Your task to perform on an android device: toggle improve location accuracy Image 0: 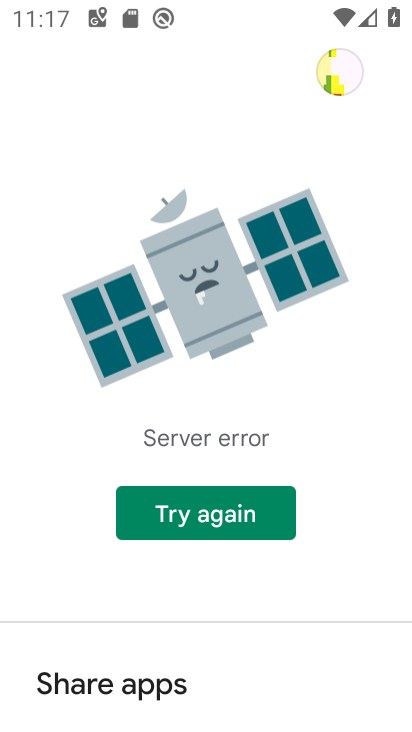
Step 0: press home button
Your task to perform on an android device: toggle improve location accuracy Image 1: 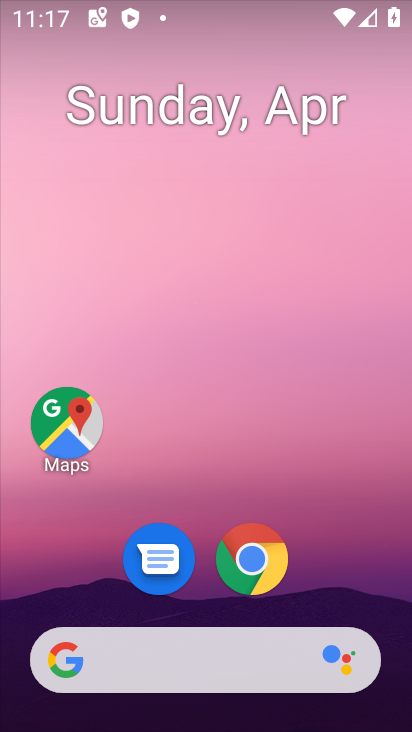
Step 1: drag from (303, 596) to (377, 64)
Your task to perform on an android device: toggle improve location accuracy Image 2: 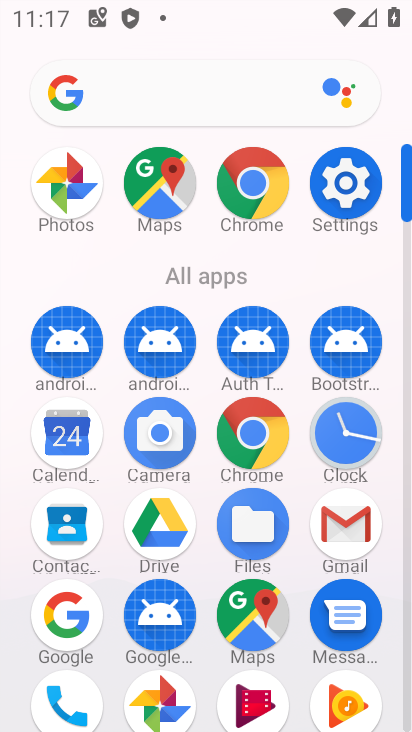
Step 2: click (353, 211)
Your task to perform on an android device: toggle improve location accuracy Image 3: 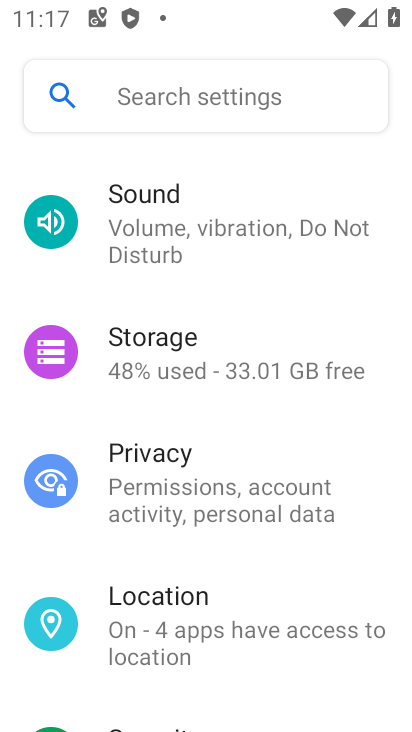
Step 3: click (193, 604)
Your task to perform on an android device: toggle improve location accuracy Image 4: 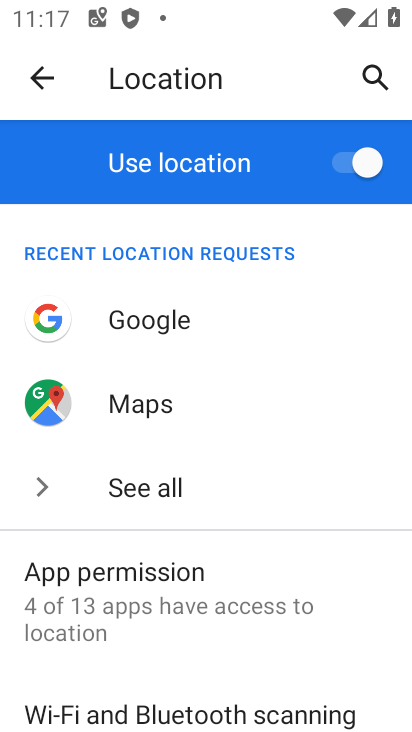
Step 4: drag from (188, 612) to (188, 482)
Your task to perform on an android device: toggle improve location accuracy Image 5: 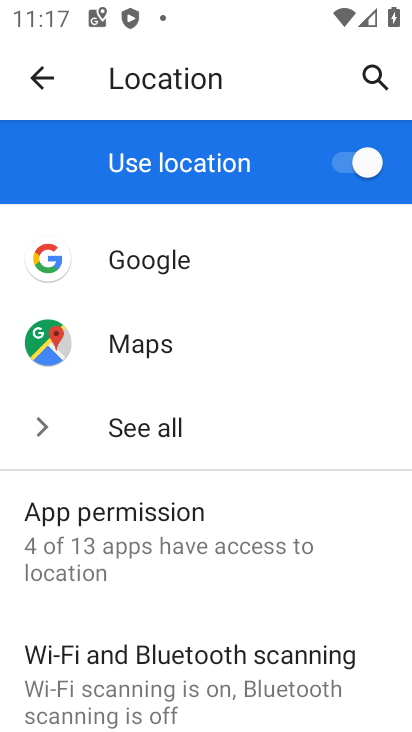
Step 5: drag from (153, 617) to (206, 329)
Your task to perform on an android device: toggle improve location accuracy Image 6: 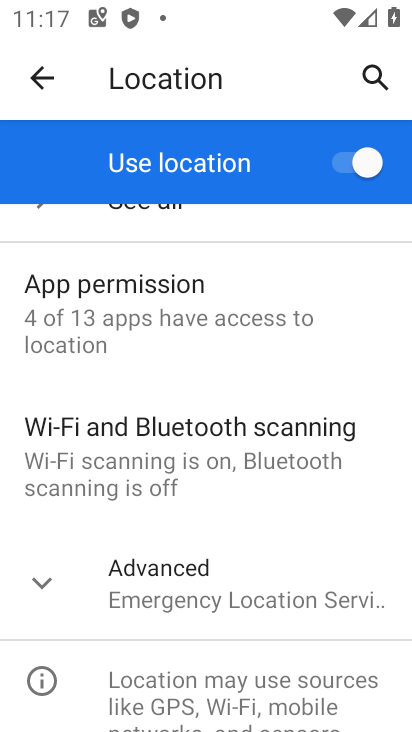
Step 6: click (203, 607)
Your task to perform on an android device: toggle improve location accuracy Image 7: 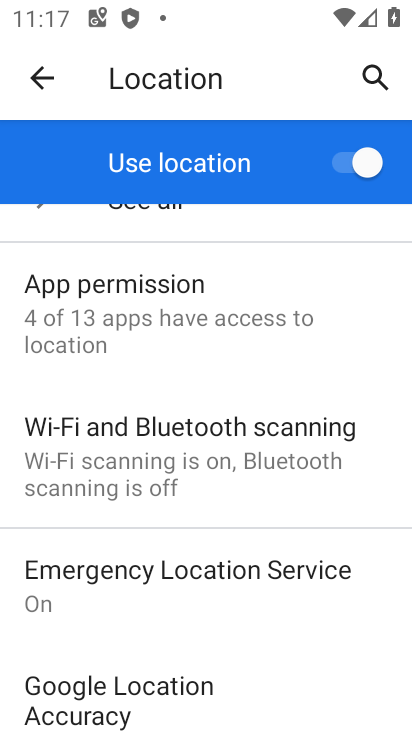
Step 7: drag from (209, 630) to (214, 499)
Your task to perform on an android device: toggle improve location accuracy Image 8: 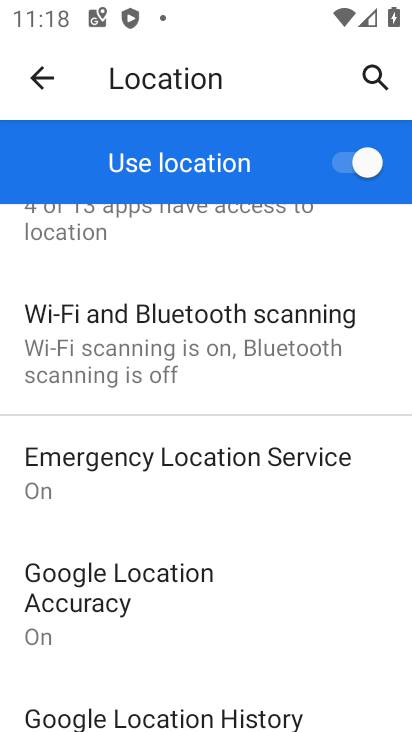
Step 8: click (172, 605)
Your task to perform on an android device: toggle improve location accuracy Image 9: 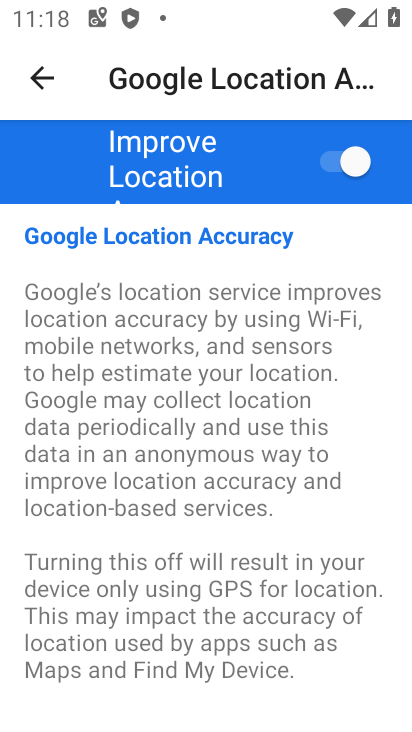
Step 9: click (326, 164)
Your task to perform on an android device: toggle improve location accuracy Image 10: 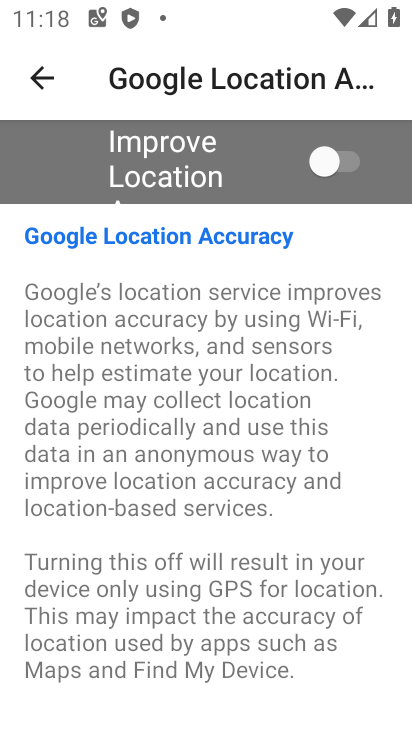
Step 10: task complete